Your task to perform on an android device: Go to wifi settings Image 0: 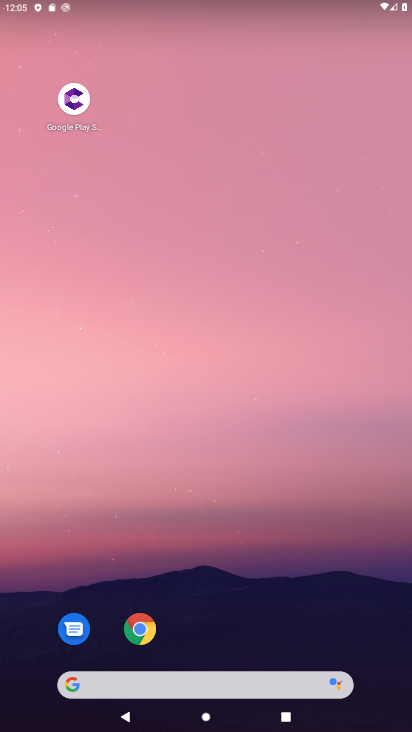
Step 0: drag from (311, 583) to (366, 108)
Your task to perform on an android device: Go to wifi settings Image 1: 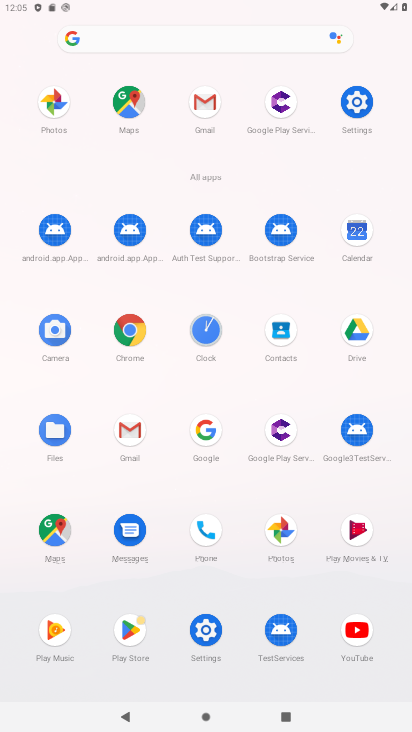
Step 1: click (358, 117)
Your task to perform on an android device: Go to wifi settings Image 2: 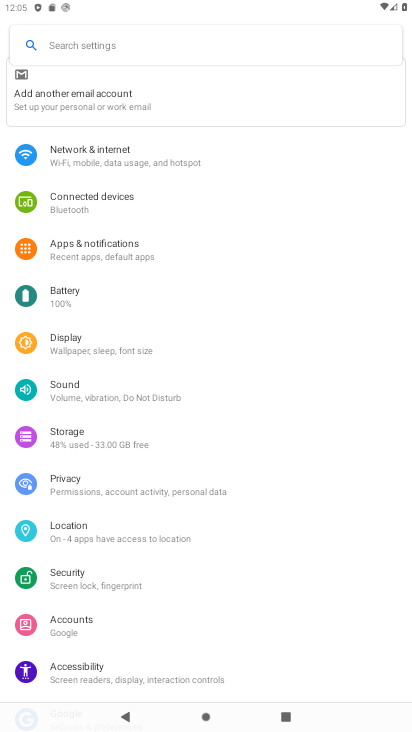
Step 2: drag from (325, 419) to (325, 324)
Your task to perform on an android device: Go to wifi settings Image 3: 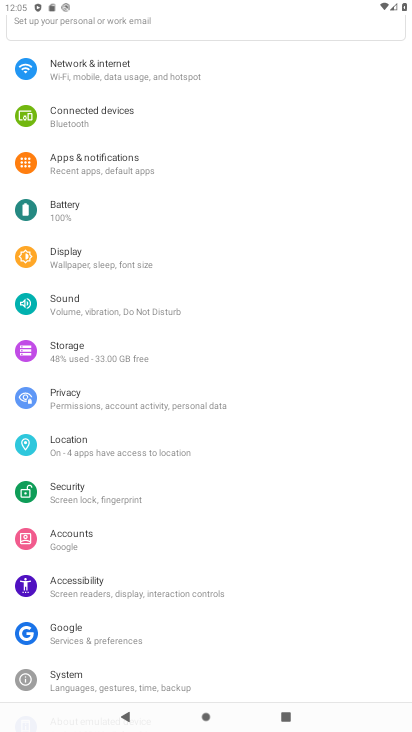
Step 3: drag from (340, 470) to (332, 359)
Your task to perform on an android device: Go to wifi settings Image 4: 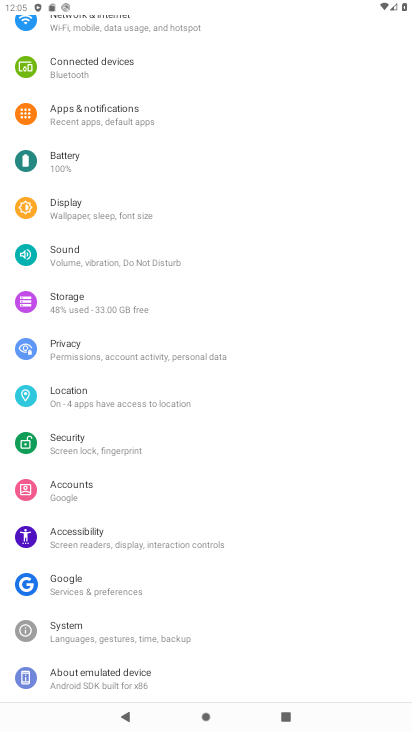
Step 4: drag from (336, 328) to (324, 412)
Your task to perform on an android device: Go to wifi settings Image 5: 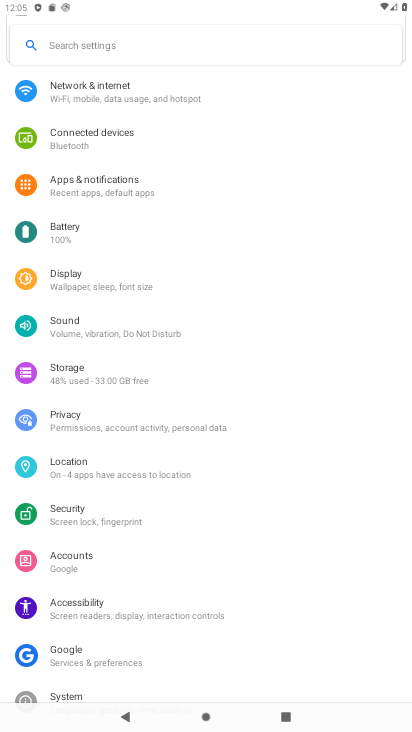
Step 5: drag from (350, 243) to (361, 338)
Your task to perform on an android device: Go to wifi settings Image 6: 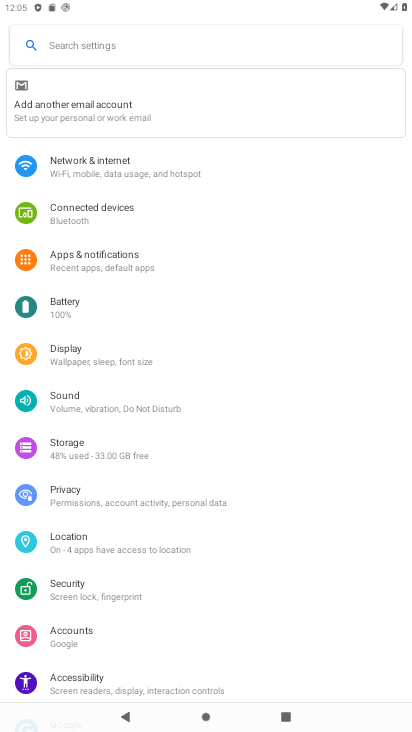
Step 6: drag from (338, 198) to (331, 296)
Your task to perform on an android device: Go to wifi settings Image 7: 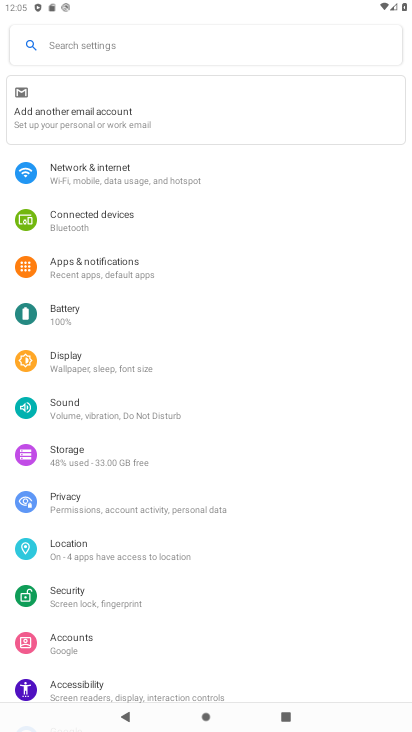
Step 7: click (277, 174)
Your task to perform on an android device: Go to wifi settings Image 8: 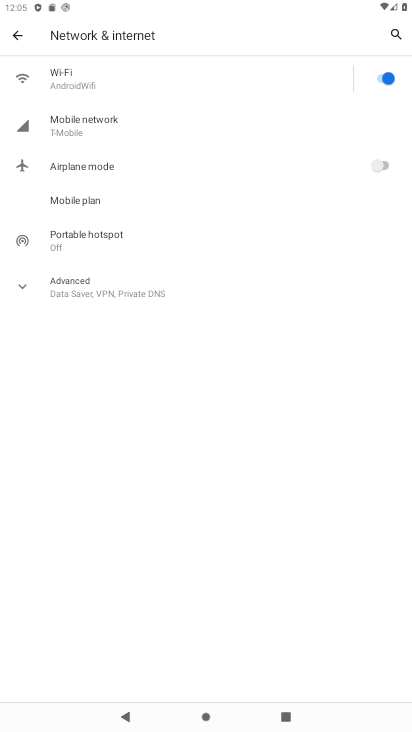
Step 8: click (87, 84)
Your task to perform on an android device: Go to wifi settings Image 9: 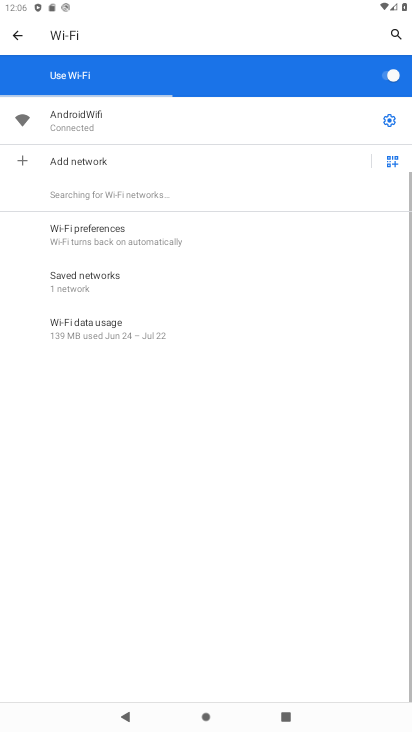
Step 9: task complete